Your task to perform on an android device: all mails in gmail Image 0: 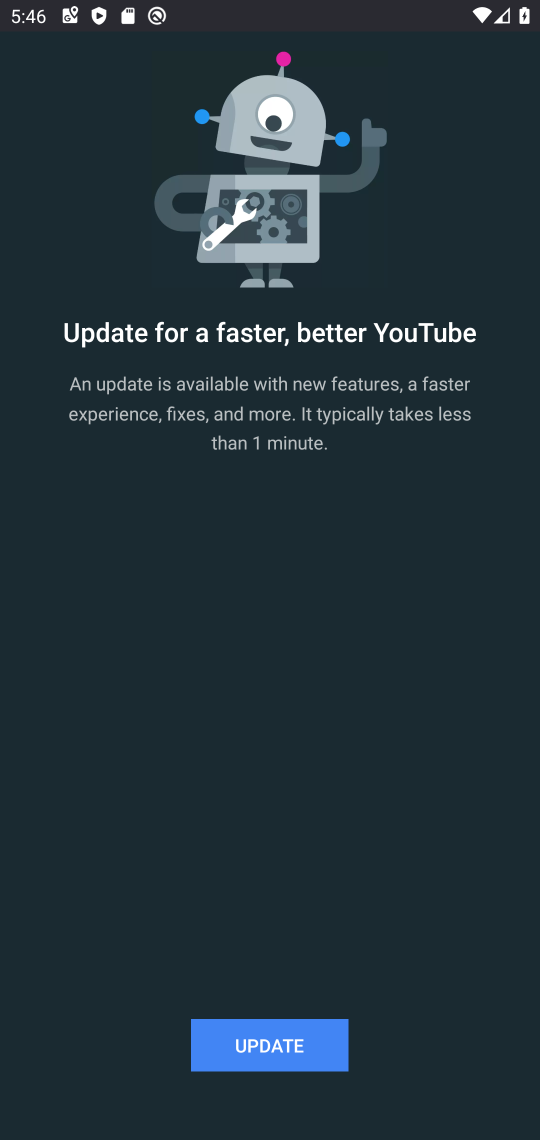
Step 0: press home button
Your task to perform on an android device: all mails in gmail Image 1: 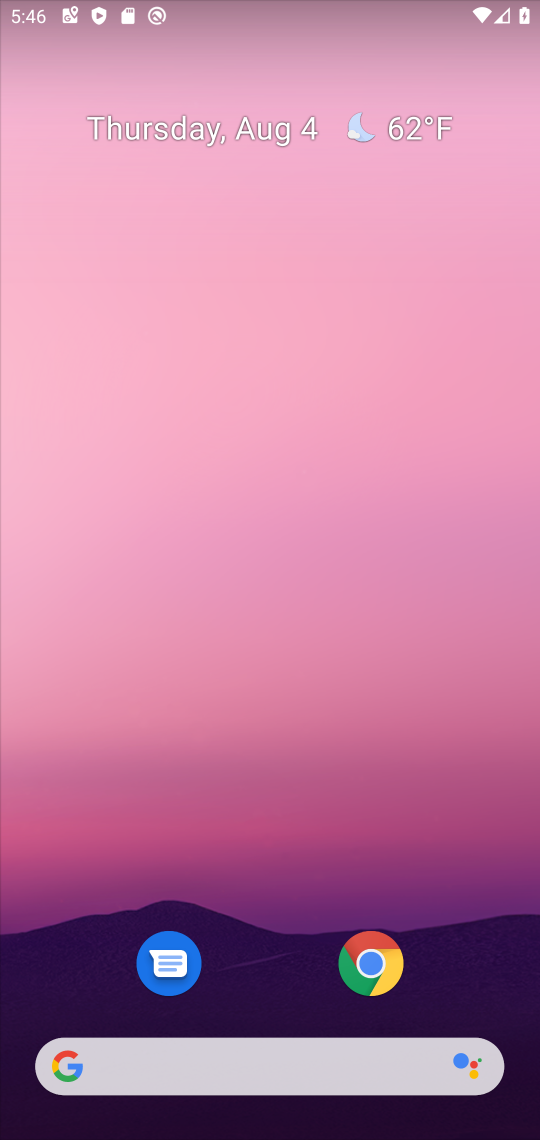
Step 1: drag from (306, 865) to (251, 177)
Your task to perform on an android device: all mails in gmail Image 2: 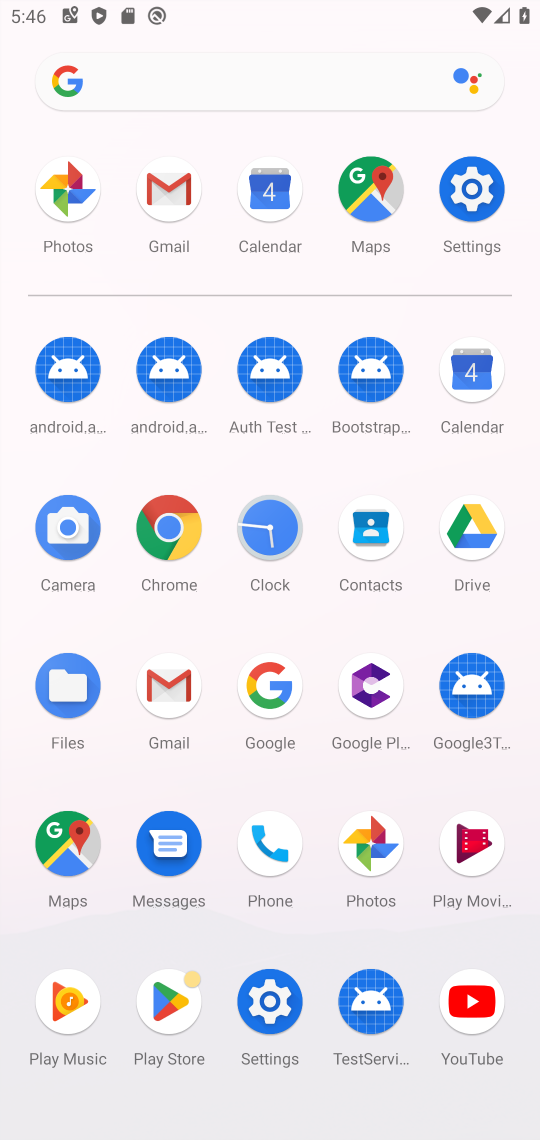
Step 2: click (174, 193)
Your task to perform on an android device: all mails in gmail Image 3: 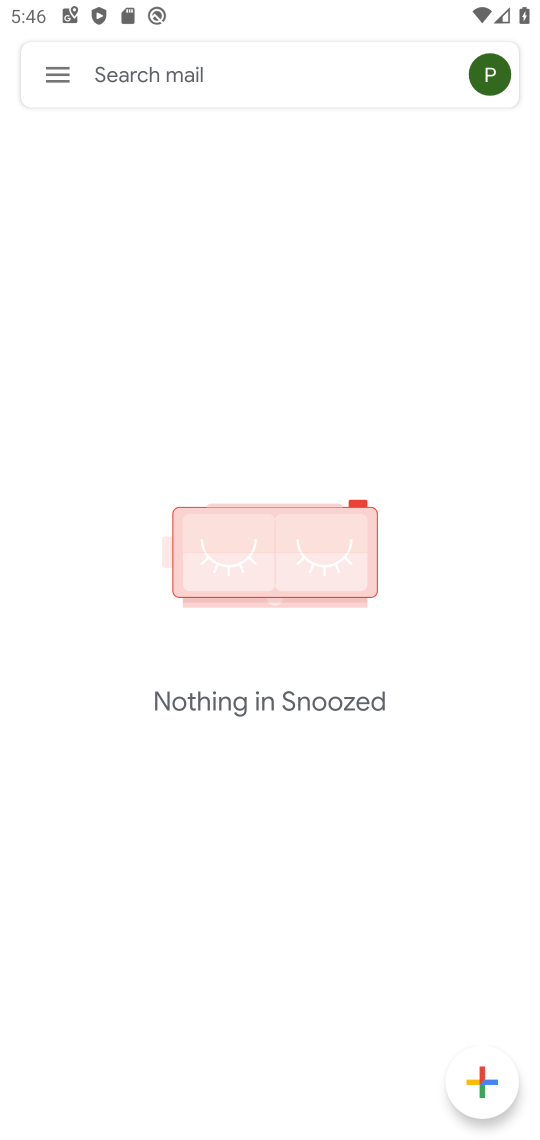
Step 3: click (56, 67)
Your task to perform on an android device: all mails in gmail Image 4: 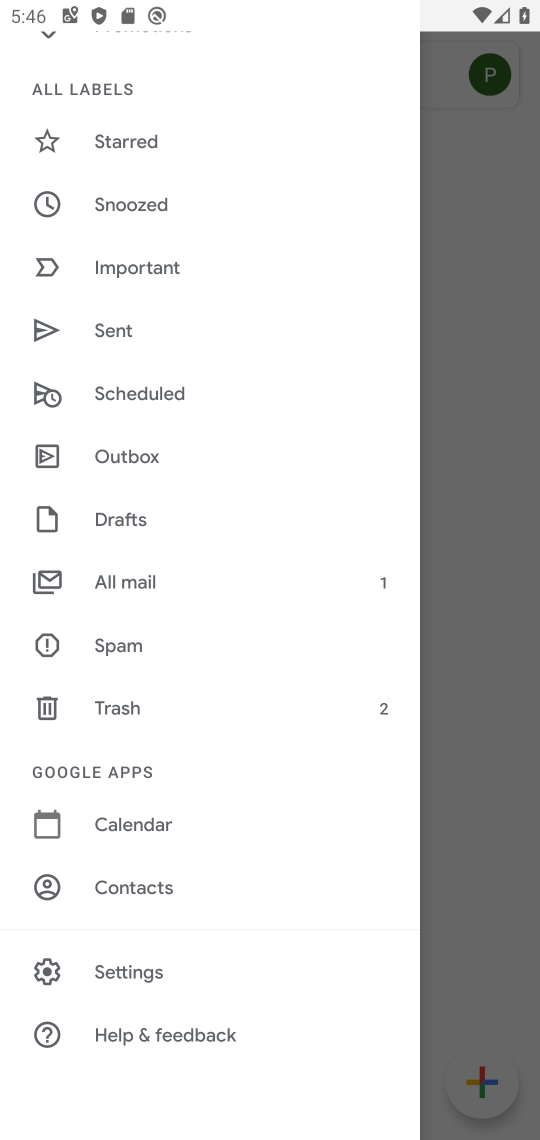
Step 4: click (147, 576)
Your task to perform on an android device: all mails in gmail Image 5: 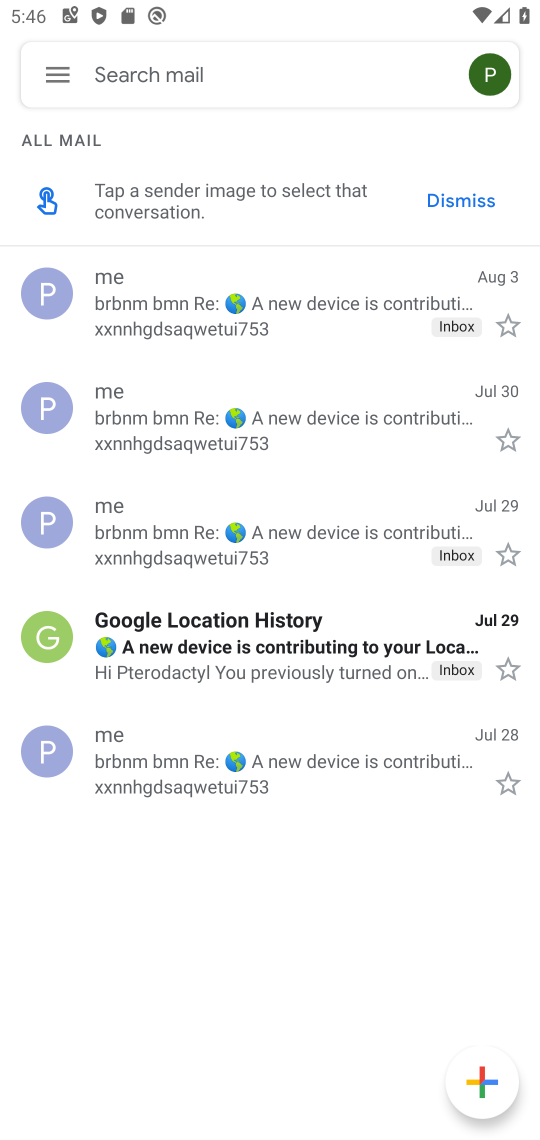
Step 5: task complete